Your task to perform on an android device: Do I have any events today? Image 0: 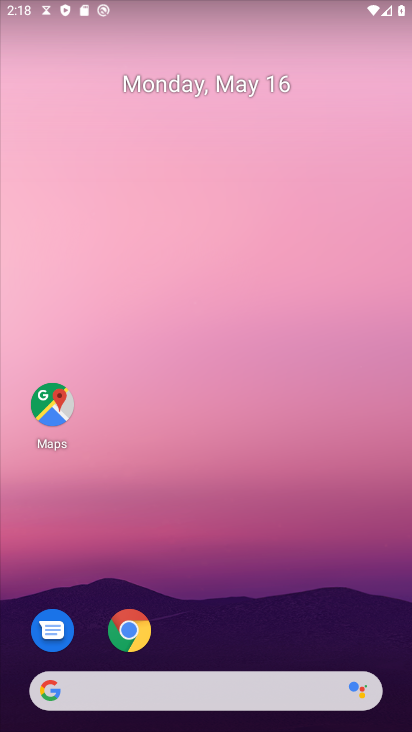
Step 0: drag from (229, 638) to (251, 266)
Your task to perform on an android device: Do I have any events today? Image 1: 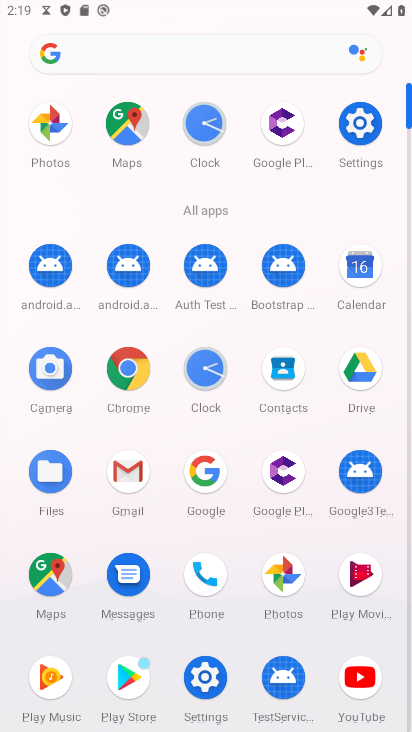
Step 1: click (360, 265)
Your task to perform on an android device: Do I have any events today? Image 2: 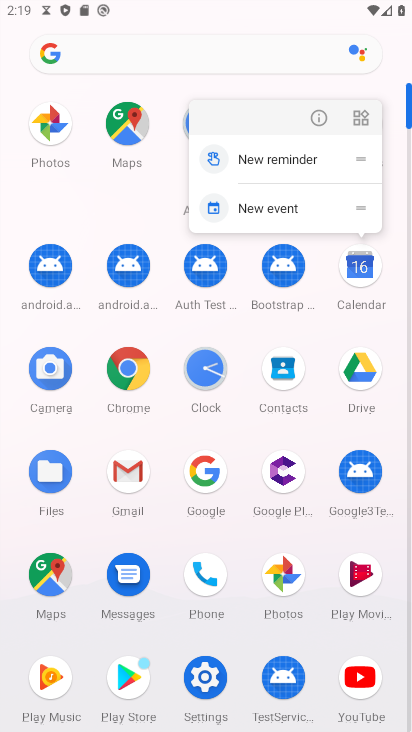
Step 2: click (349, 270)
Your task to perform on an android device: Do I have any events today? Image 3: 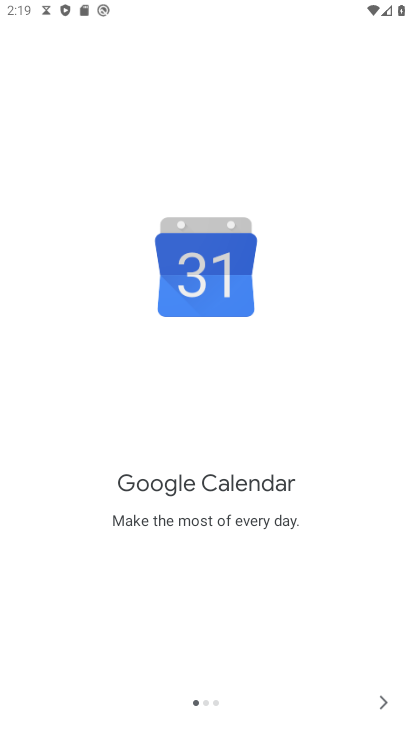
Step 3: click (378, 702)
Your task to perform on an android device: Do I have any events today? Image 4: 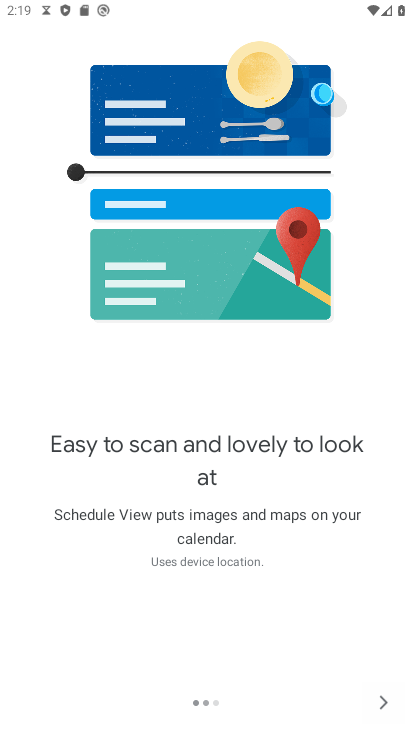
Step 4: click (378, 702)
Your task to perform on an android device: Do I have any events today? Image 5: 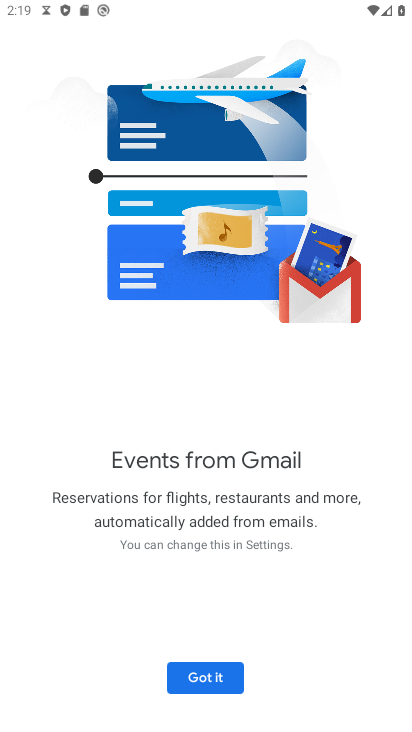
Step 5: click (204, 669)
Your task to perform on an android device: Do I have any events today? Image 6: 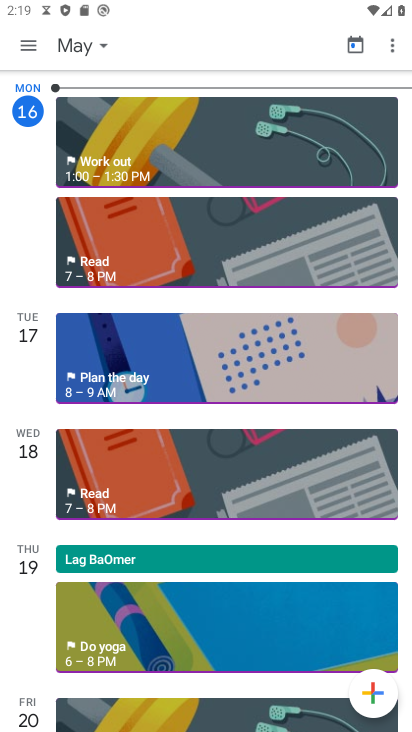
Step 6: click (16, 167)
Your task to perform on an android device: Do I have any events today? Image 7: 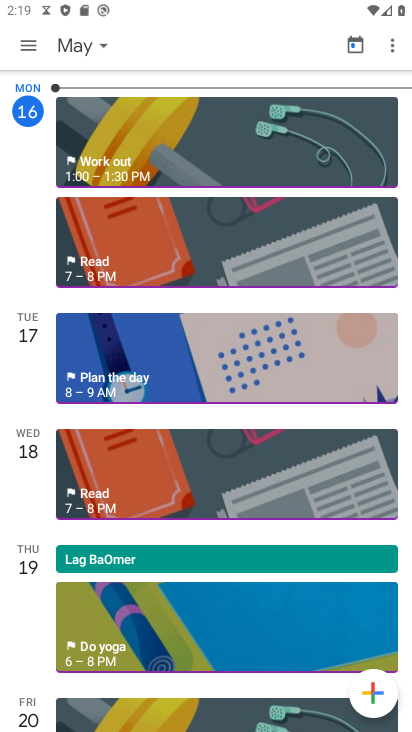
Step 7: click (34, 216)
Your task to perform on an android device: Do I have any events today? Image 8: 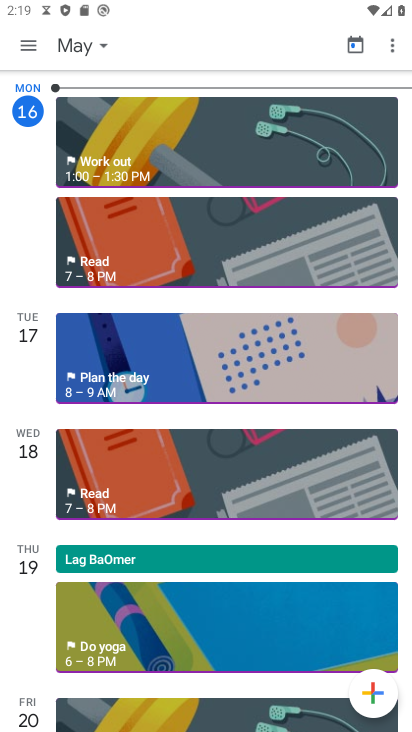
Step 8: click (26, 132)
Your task to perform on an android device: Do I have any events today? Image 9: 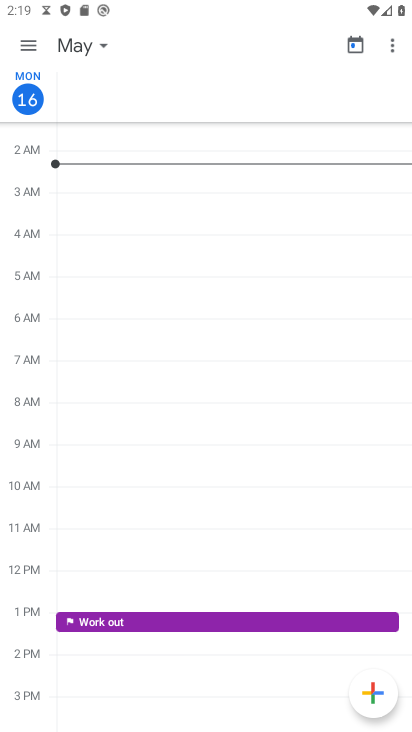
Step 9: task complete